Your task to perform on an android device: Go to display settings Image 0: 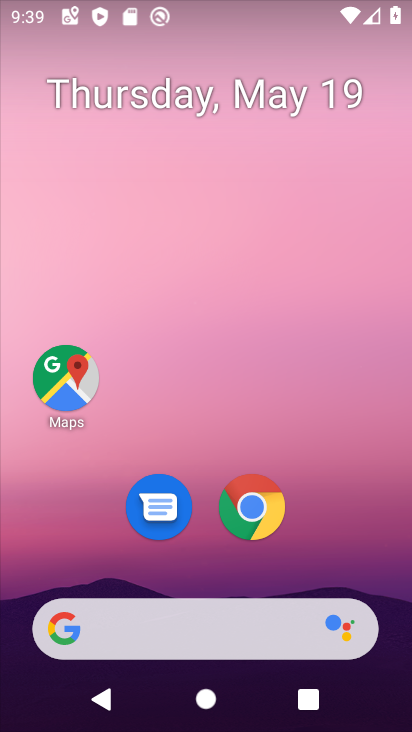
Step 0: drag from (397, 612) to (369, 55)
Your task to perform on an android device: Go to display settings Image 1: 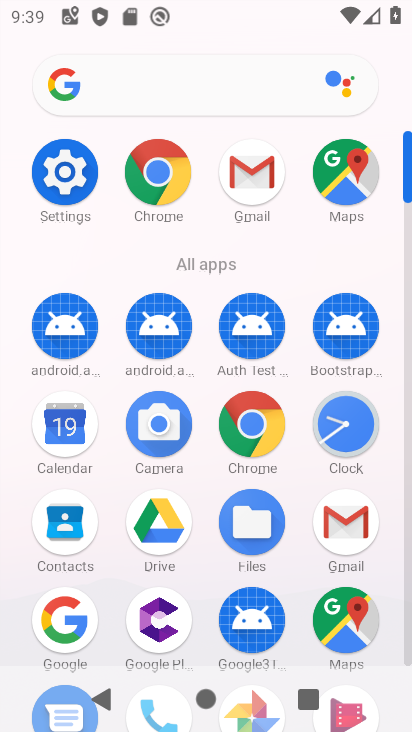
Step 1: click (407, 639)
Your task to perform on an android device: Go to display settings Image 2: 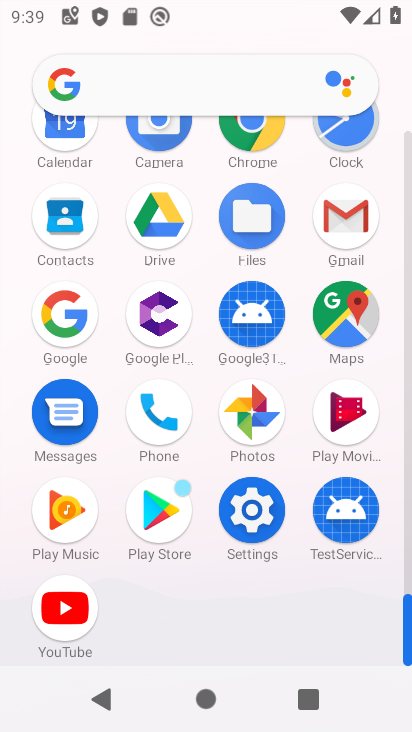
Step 2: click (249, 511)
Your task to perform on an android device: Go to display settings Image 3: 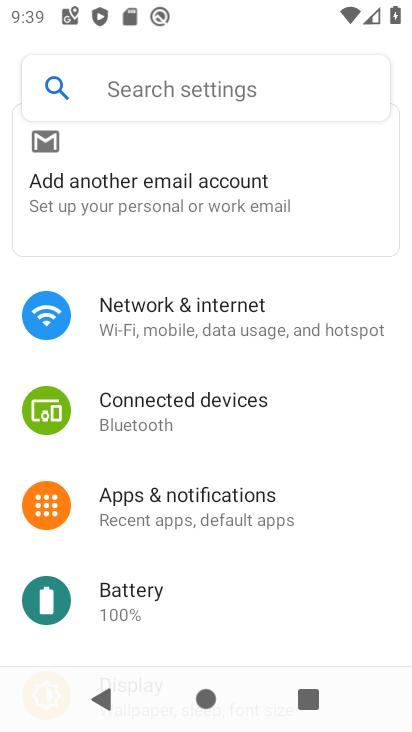
Step 3: drag from (348, 599) to (320, 196)
Your task to perform on an android device: Go to display settings Image 4: 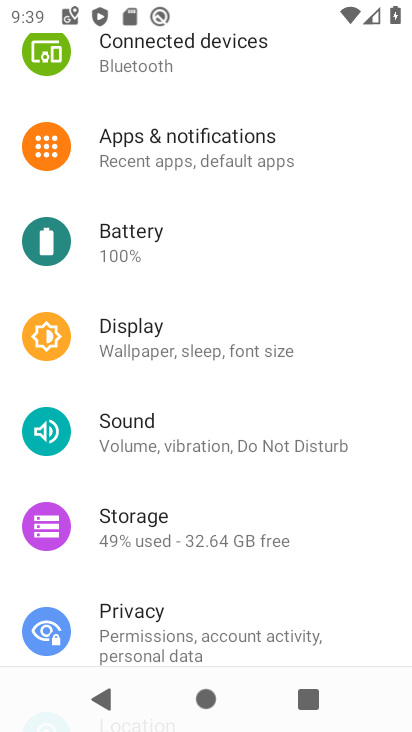
Step 4: click (157, 353)
Your task to perform on an android device: Go to display settings Image 5: 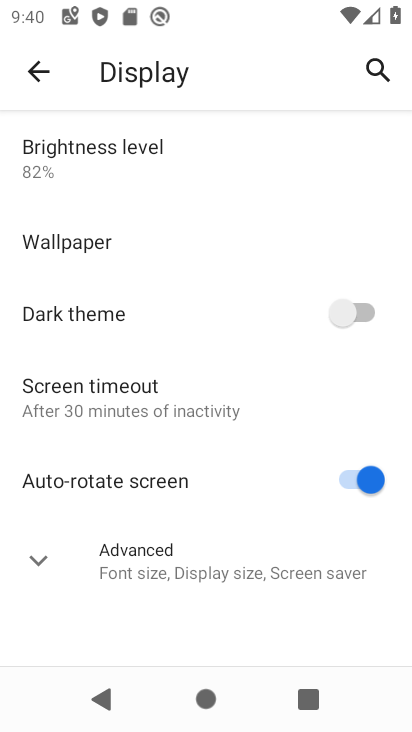
Step 5: click (49, 567)
Your task to perform on an android device: Go to display settings Image 6: 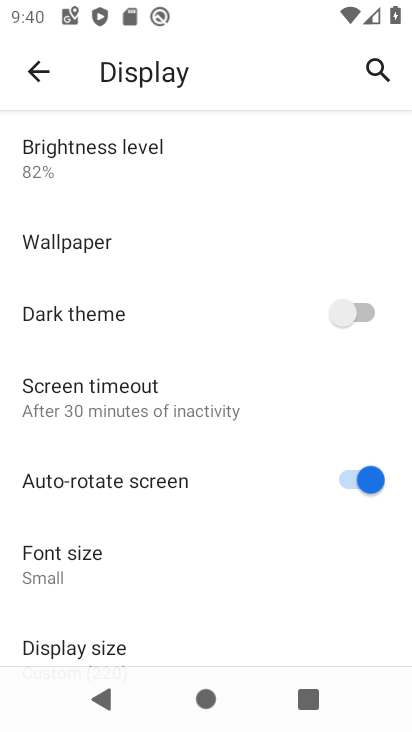
Step 6: task complete